Your task to perform on an android device: check google app version Image 0: 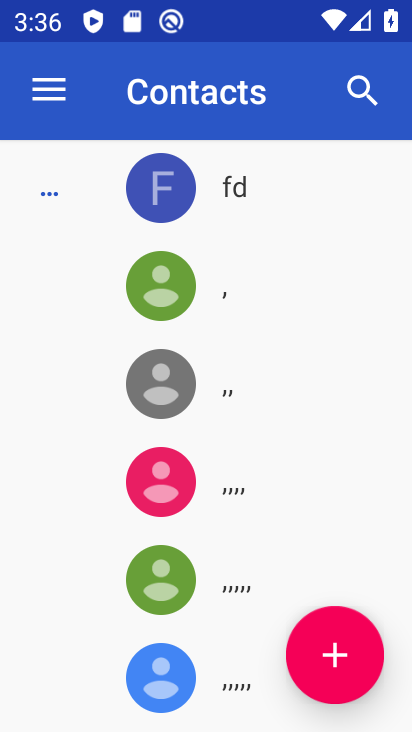
Step 0: press home button
Your task to perform on an android device: check google app version Image 1: 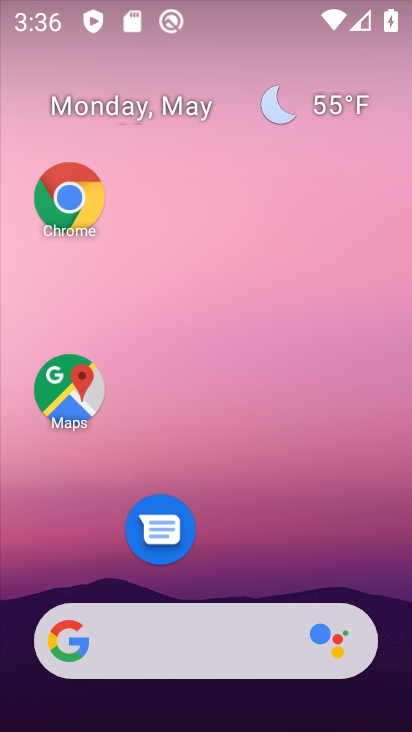
Step 1: drag from (228, 611) to (221, 104)
Your task to perform on an android device: check google app version Image 2: 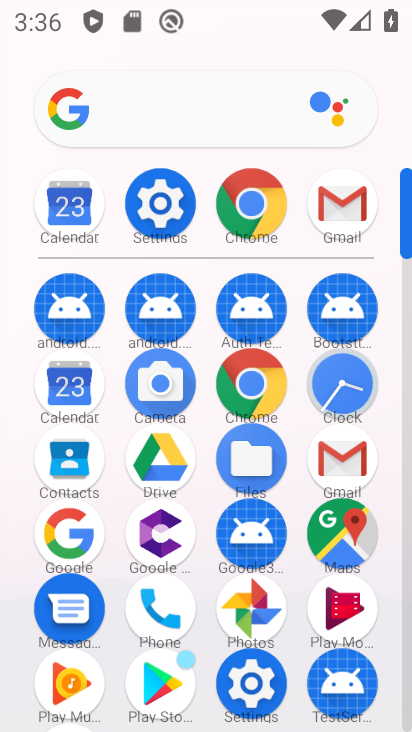
Step 2: click (164, 203)
Your task to perform on an android device: check google app version Image 3: 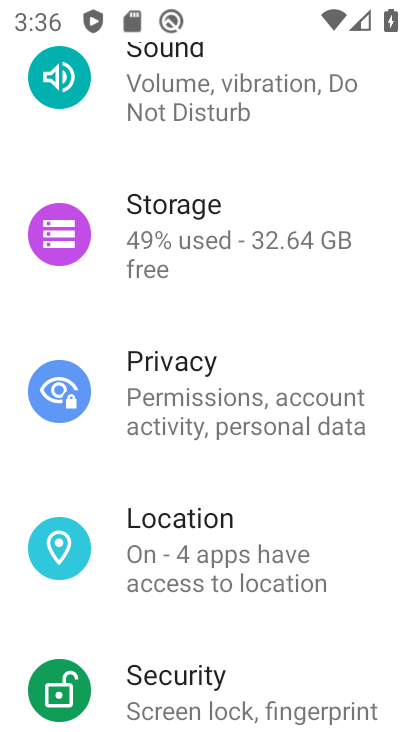
Step 3: drag from (166, 204) to (194, 566)
Your task to perform on an android device: check google app version Image 4: 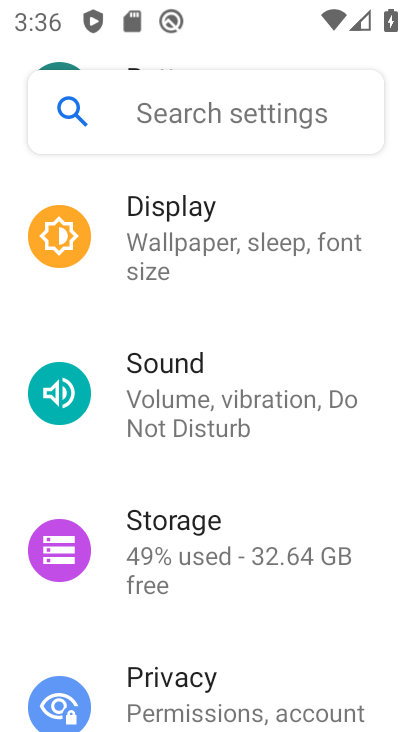
Step 4: drag from (252, 368) to (275, 705)
Your task to perform on an android device: check google app version Image 5: 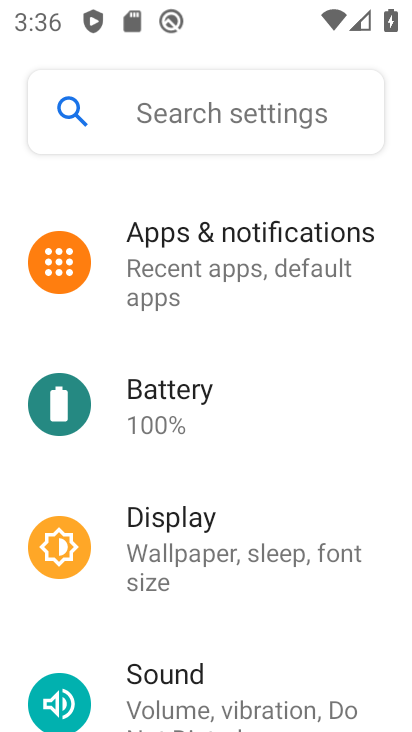
Step 5: press home button
Your task to perform on an android device: check google app version Image 6: 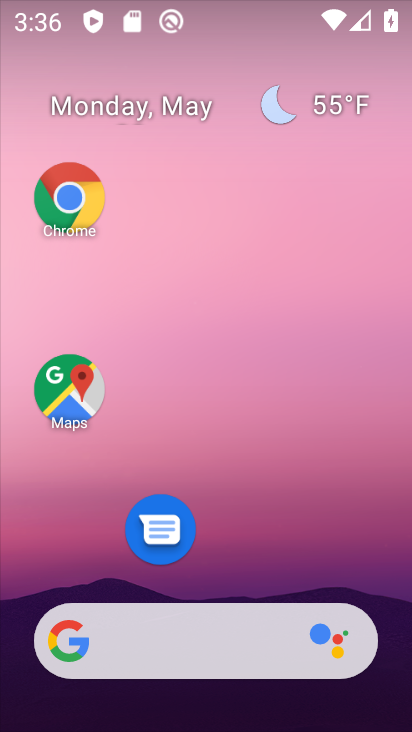
Step 6: drag from (275, 644) to (309, 157)
Your task to perform on an android device: check google app version Image 7: 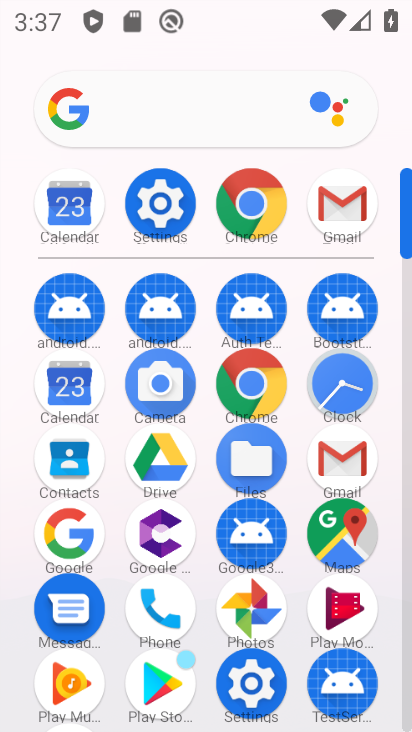
Step 7: click (69, 535)
Your task to perform on an android device: check google app version Image 8: 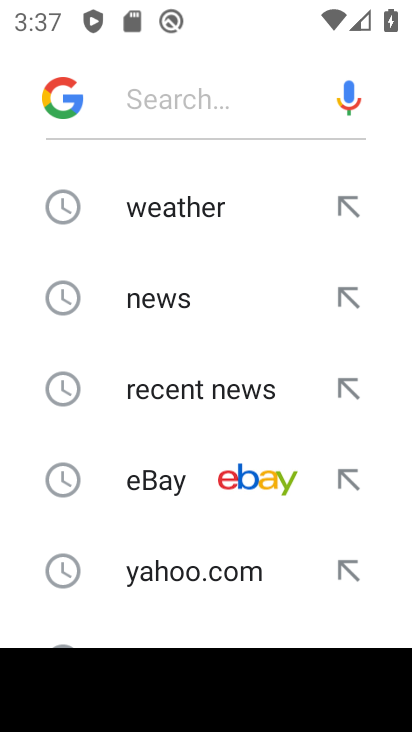
Step 8: press back button
Your task to perform on an android device: check google app version Image 9: 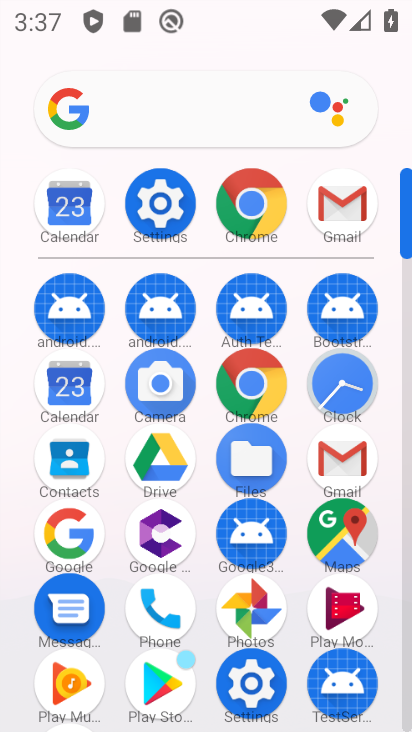
Step 9: click (73, 543)
Your task to perform on an android device: check google app version Image 10: 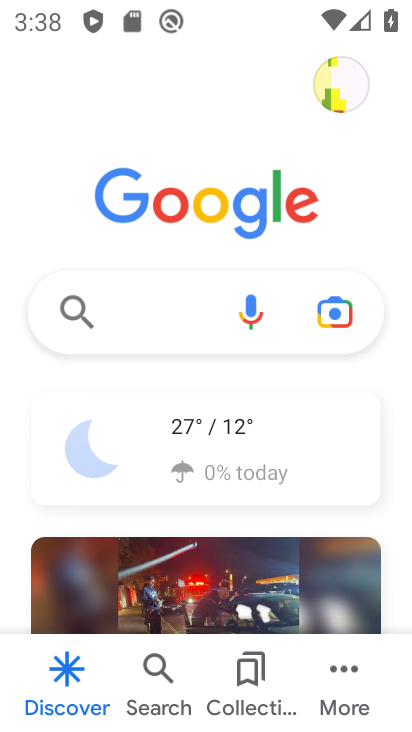
Step 10: click (351, 694)
Your task to perform on an android device: check google app version Image 11: 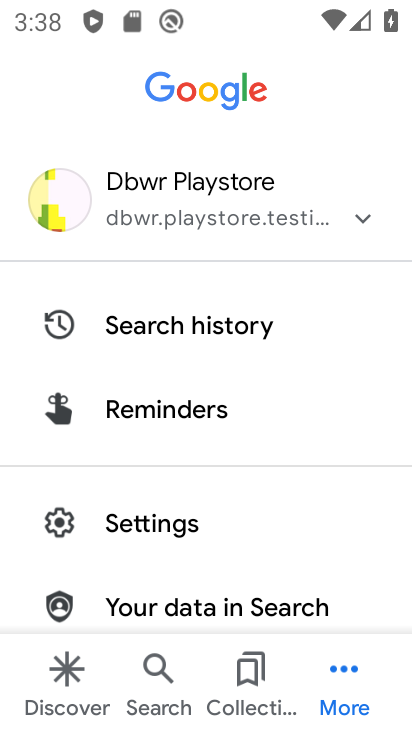
Step 11: click (158, 539)
Your task to perform on an android device: check google app version Image 12: 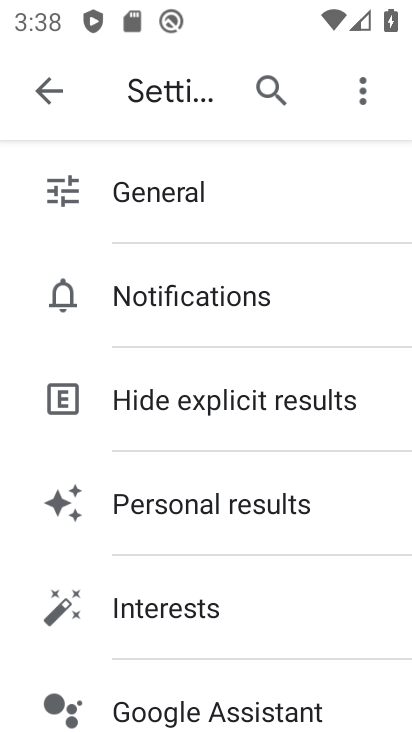
Step 12: drag from (191, 606) to (243, 17)
Your task to perform on an android device: check google app version Image 13: 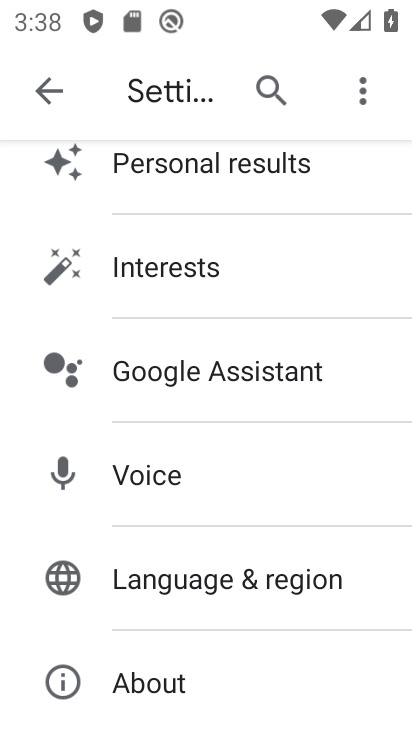
Step 13: click (248, 687)
Your task to perform on an android device: check google app version Image 14: 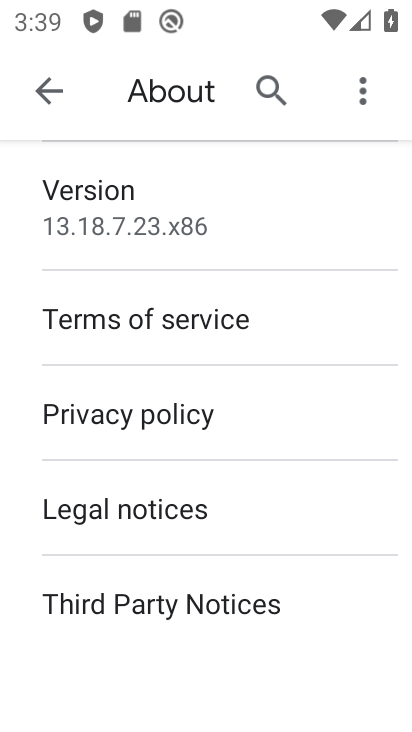
Step 14: click (159, 173)
Your task to perform on an android device: check google app version Image 15: 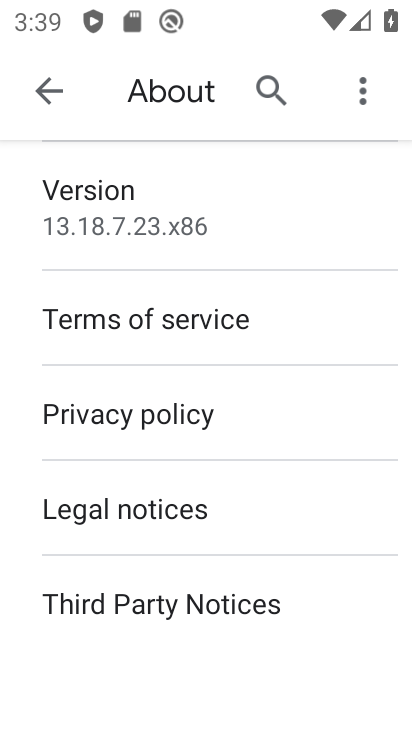
Step 15: task complete